Your task to perform on an android device: Open network settings Image 0: 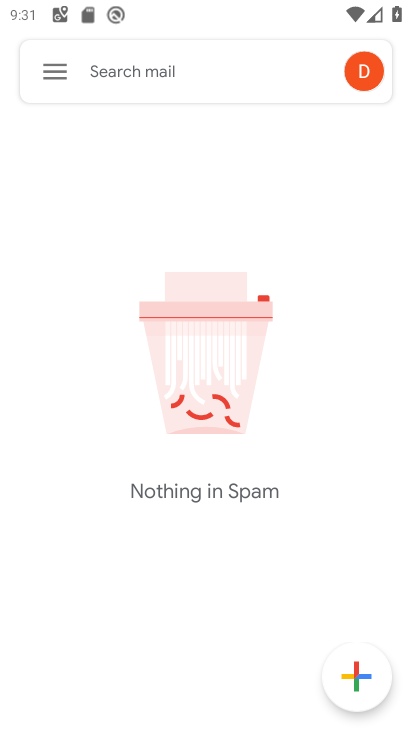
Step 0: press home button
Your task to perform on an android device: Open network settings Image 1: 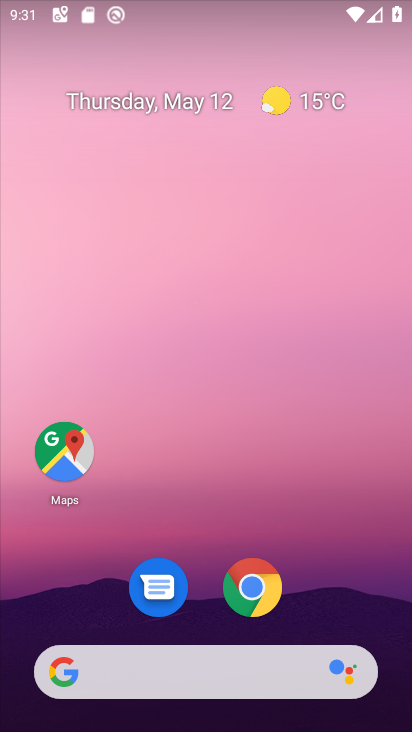
Step 1: drag from (360, 629) to (291, 79)
Your task to perform on an android device: Open network settings Image 2: 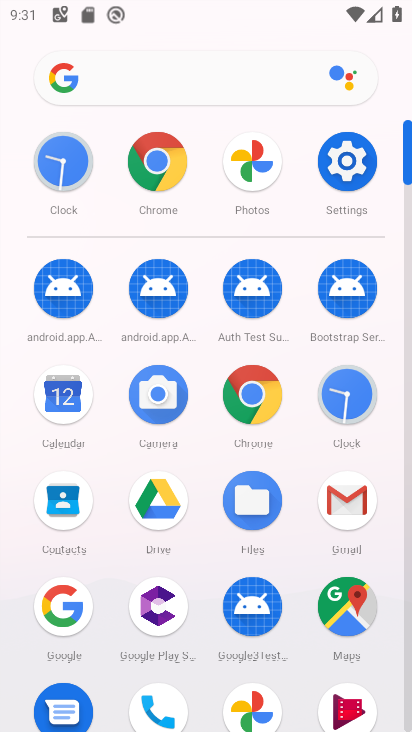
Step 2: click (364, 173)
Your task to perform on an android device: Open network settings Image 3: 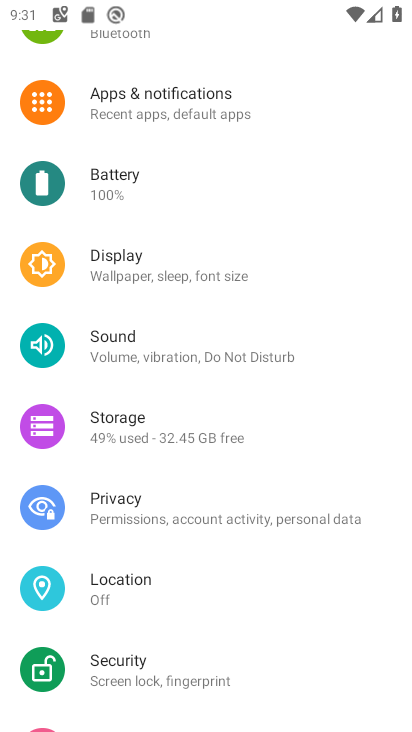
Step 3: drag from (74, 120) to (192, 624)
Your task to perform on an android device: Open network settings Image 4: 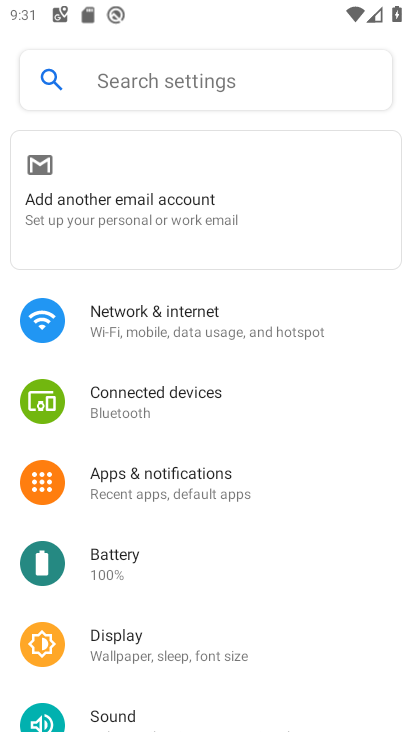
Step 4: click (145, 336)
Your task to perform on an android device: Open network settings Image 5: 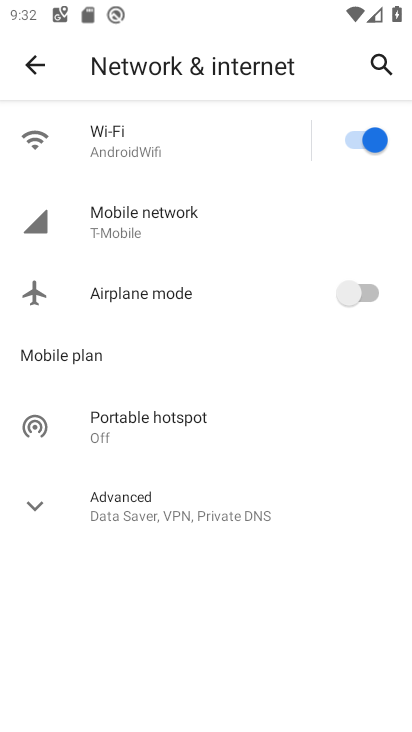
Step 5: task complete